Your task to perform on an android device: Is it going to rain this weekend? Image 0: 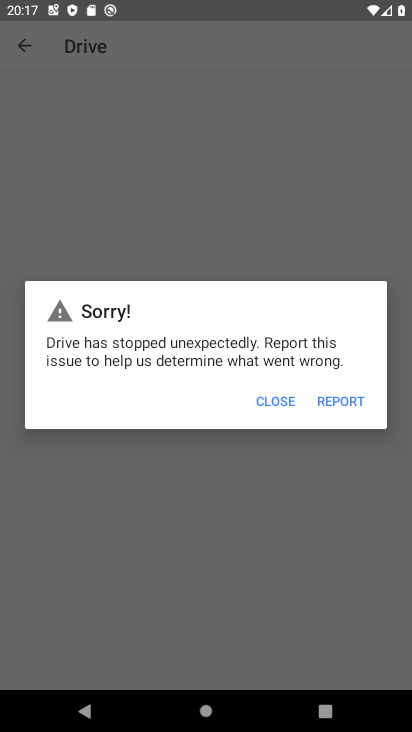
Step 0: press home button
Your task to perform on an android device: Is it going to rain this weekend? Image 1: 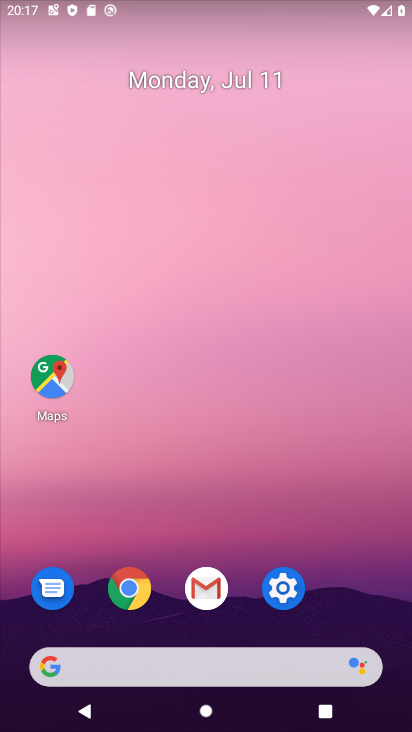
Step 1: drag from (223, 696) to (204, 124)
Your task to perform on an android device: Is it going to rain this weekend? Image 2: 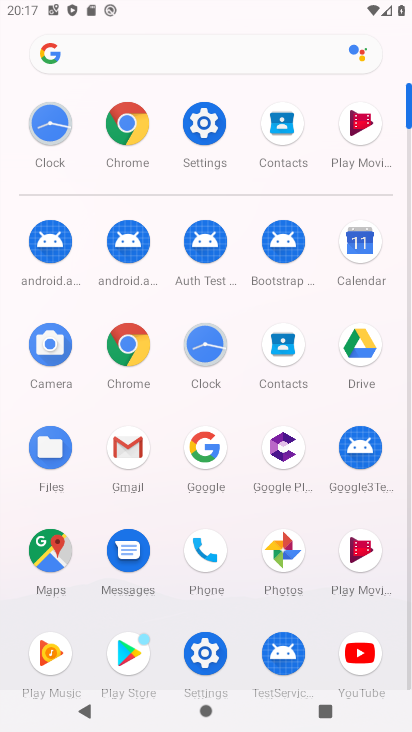
Step 2: click (91, 55)
Your task to perform on an android device: Is it going to rain this weekend? Image 3: 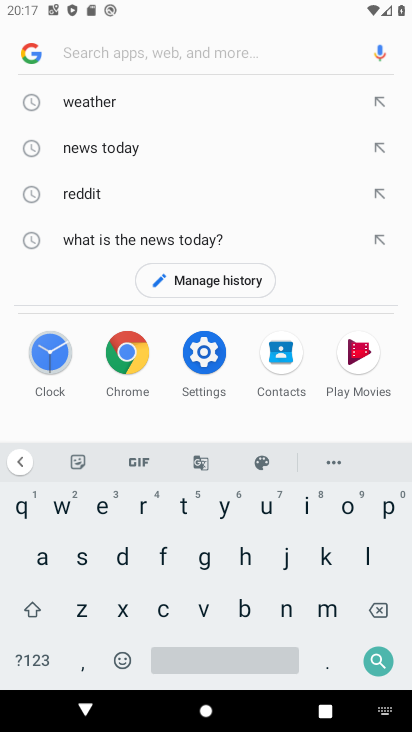
Step 3: click (134, 102)
Your task to perform on an android device: Is it going to rain this weekend? Image 4: 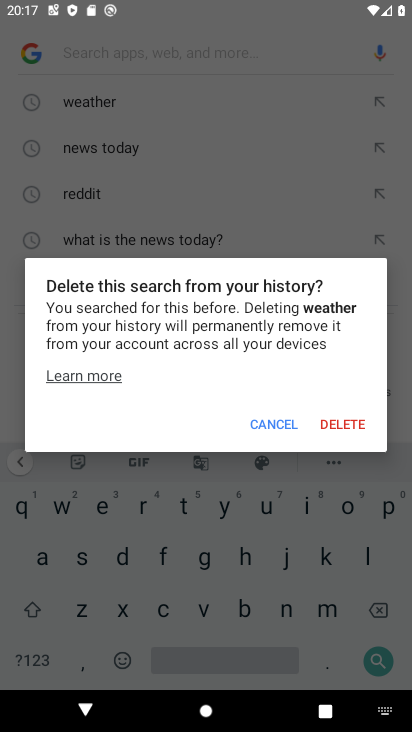
Step 4: click (254, 411)
Your task to perform on an android device: Is it going to rain this weekend? Image 5: 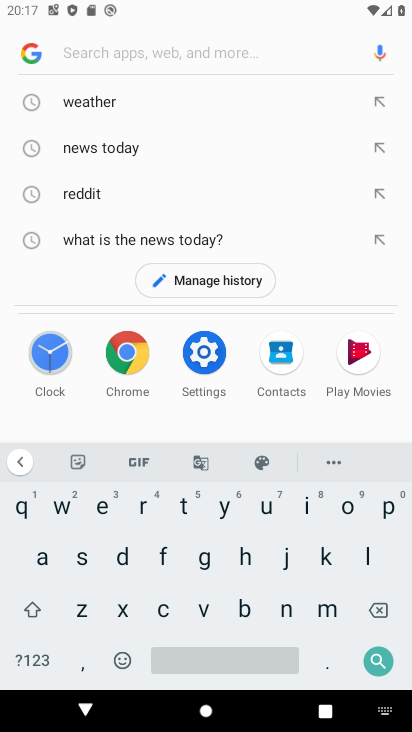
Step 5: click (142, 502)
Your task to perform on an android device: Is it going to rain this weekend? Image 6: 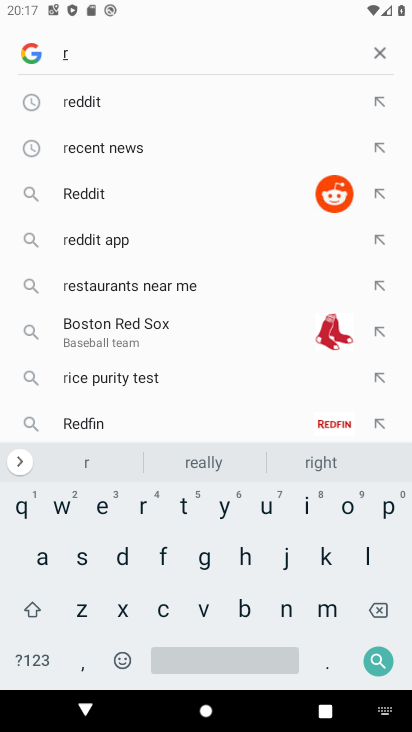
Step 6: click (36, 552)
Your task to perform on an android device: Is it going to rain this weekend? Image 7: 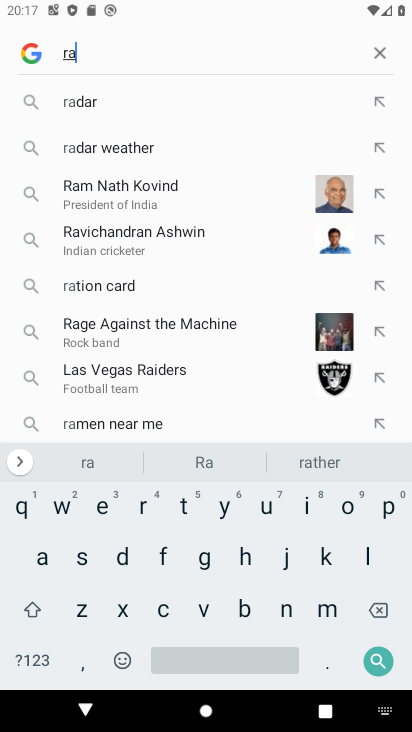
Step 7: click (305, 502)
Your task to perform on an android device: Is it going to rain this weekend? Image 8: 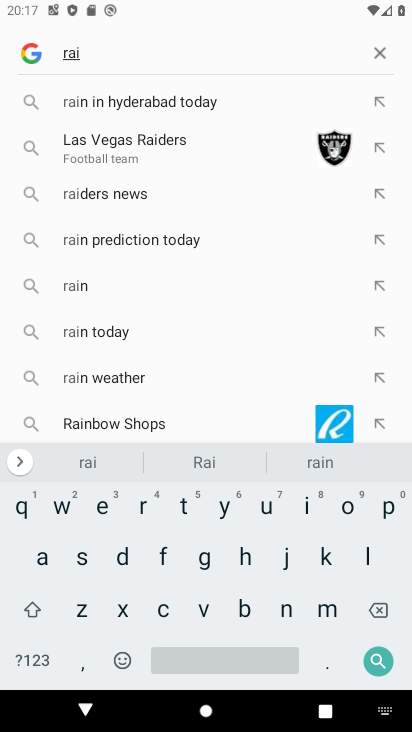
Step 8: click (283, 608)
Your task to perform on an android device: Is it going to rain this weekend? Image 9: 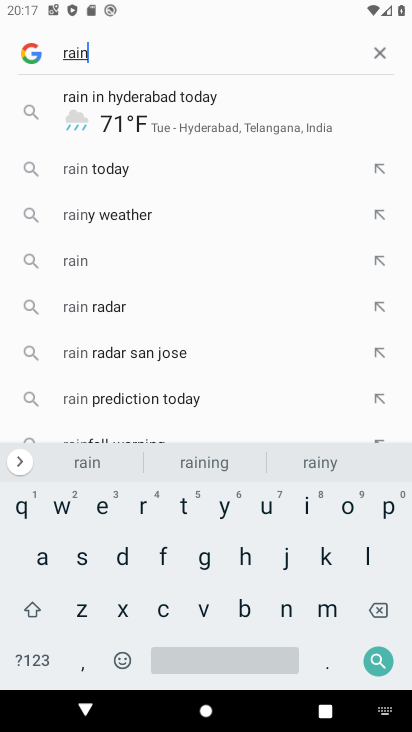
Step 9: click (80, 260)
Your task to perform on an android device: Is it going to rain this weekend? Image 10: 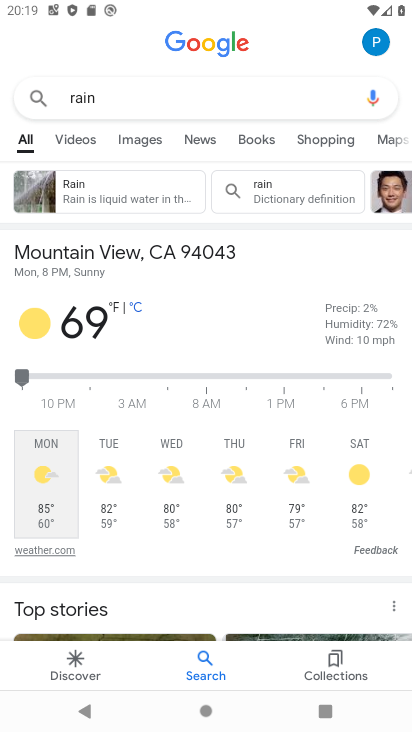
Step 10: task complete